Your task to perform on an android device: Open accessibility settings Image 0: 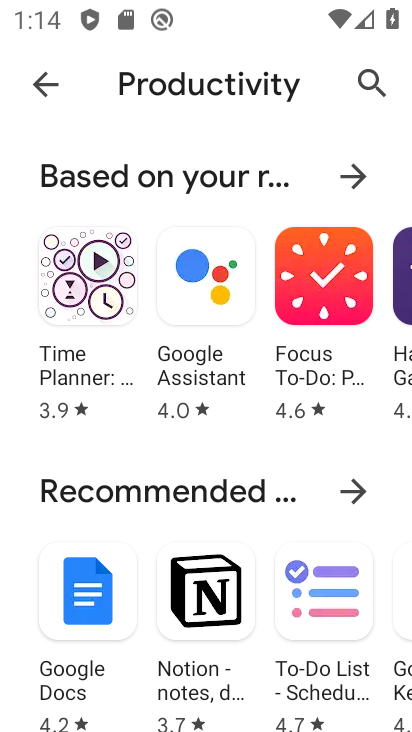
Step 0: press home button
Your task to perform on an android device: Open accessibility settings Image 1: 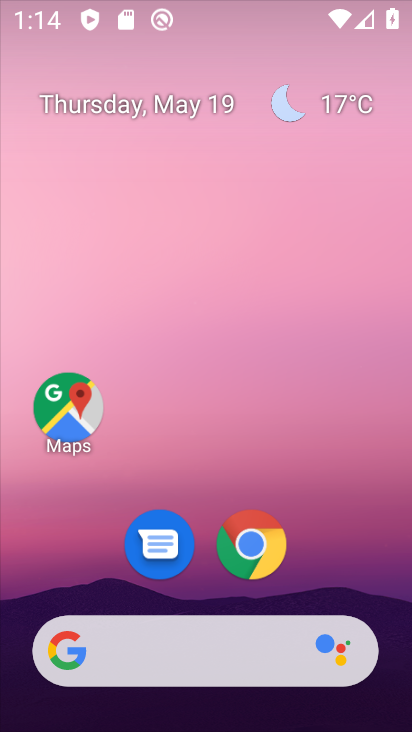
Step 1: click (183, 232)
Your task to perform on an android device: Open accessibility settings Image 2: 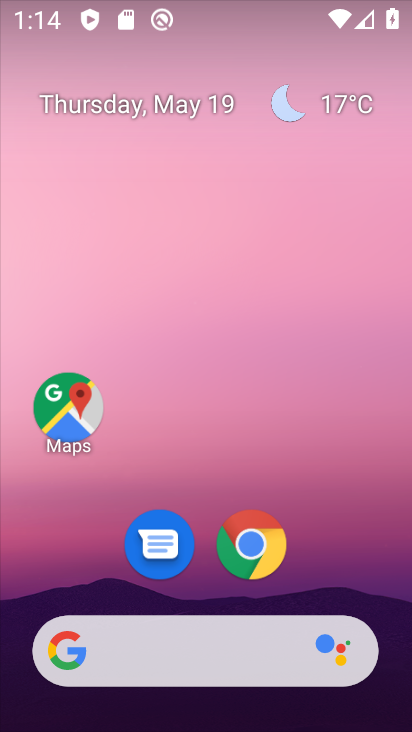
Step 2: drag from (201, 706) to (198, 358)
Your task to perform on an android device: Open accessibility settings Image 3: 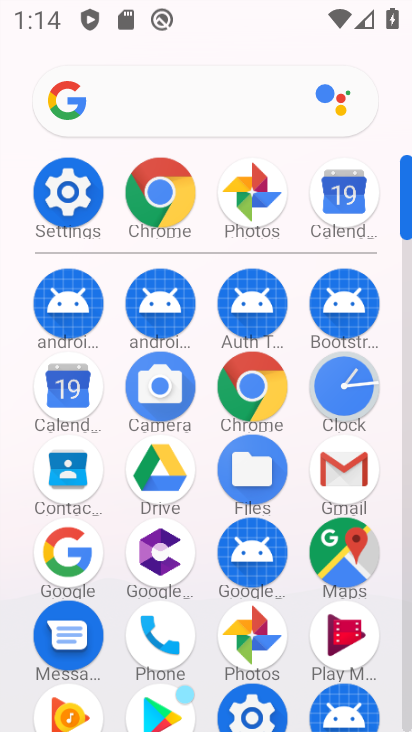
Step 3: click (70, 188)
Your task to perform on an android device: Open accessibility settings Image 4: 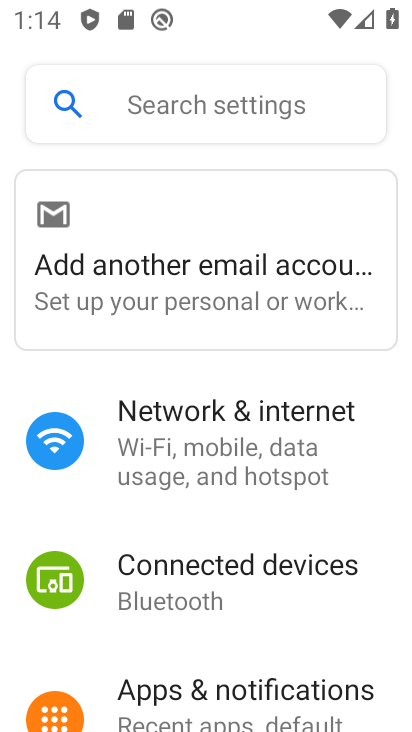
Step 4: drag from (226, 683) to (224, 301)
Your task to perform on an android device: Open accessibility settings Image 5: 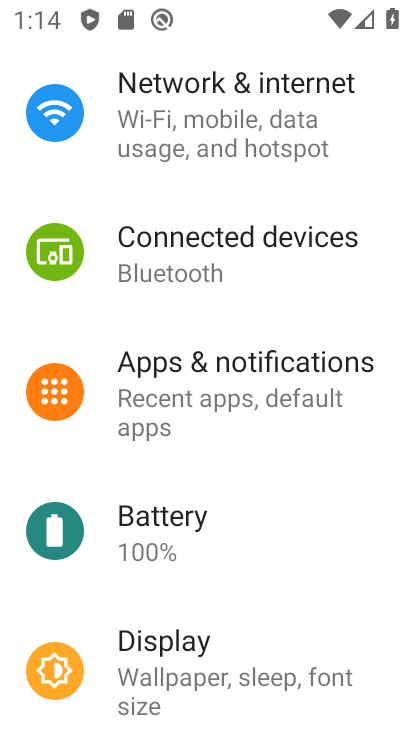
Step 5: drag from (188, 685) to (187, 314)
Your task to perform on an android device: Open accessibility settings Image 6: 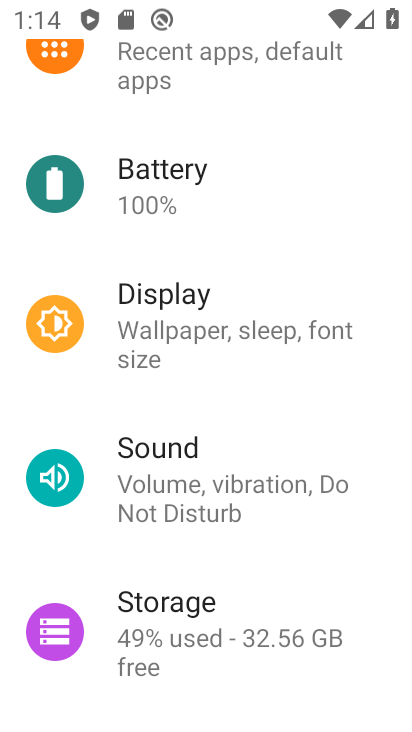
Step 6: drag from (156, 680) to (170, 272)
Your task to perform on an android device: Open accessibility settings Image 7: 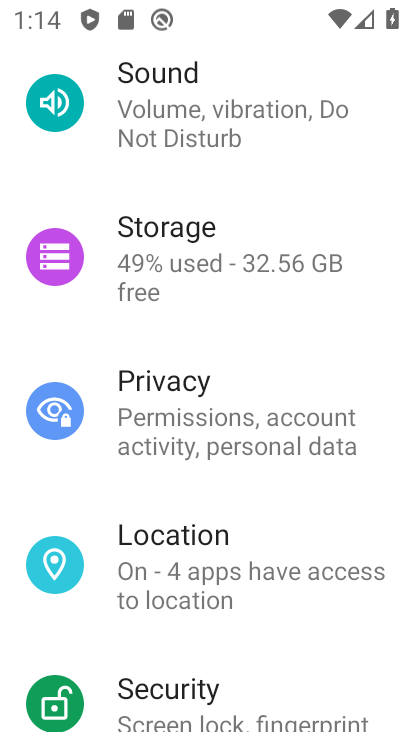
Step 7: drag from (168, 675) to (167, 272)
Your task to perform on an android device: Open accessibility settings Image 8: 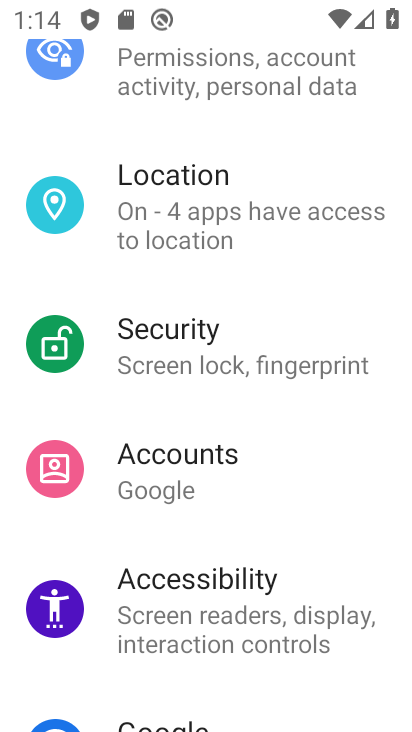
Step 8: click (151, 618)
Your task to perform on an android device: Open accessibility settings Image 9: 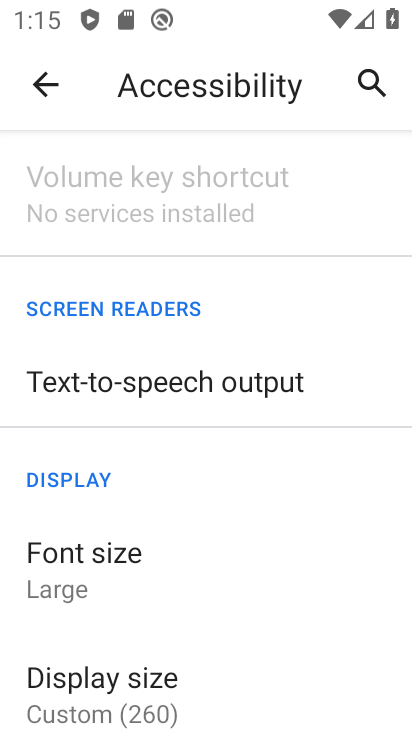
Step 9: task complete